Your task to perform on an android device: set default search engine in the chrome app Image 0: 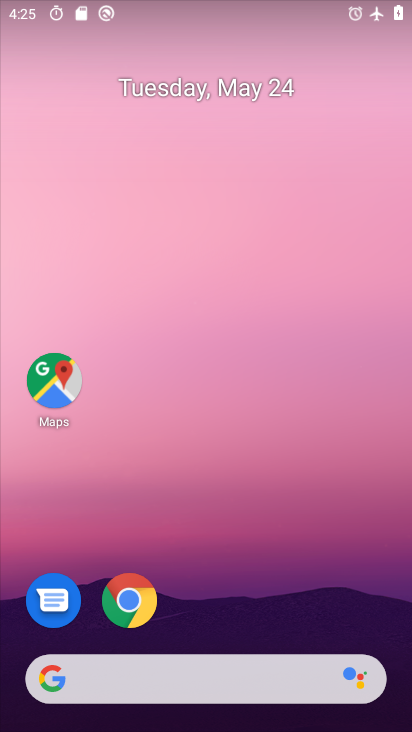
Step 0: drag from (340, 692) to (342, 4)
Your task to perform on an android device: set default search engine in the chrome app Image 1: 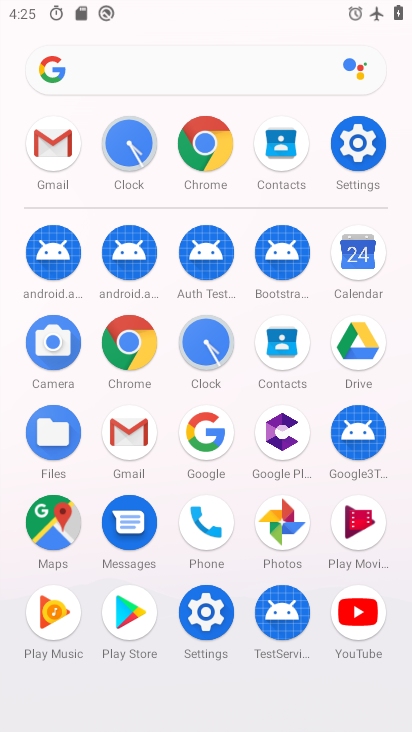
Step 1: click (125, 341)
Your task to perform on an android device: set default search engine in the chrome app Image 2: 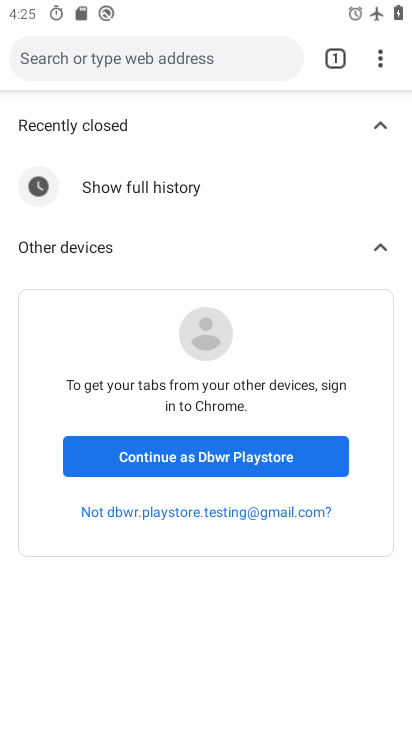
Step 2: click (390, 53)
Your task to perform on an android device: set default search engine in the chrome app Image 3: 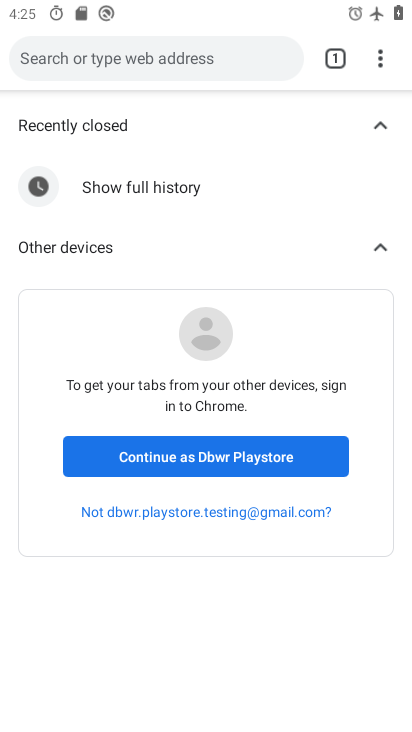
Step 3: drag from (386, 48) to (155, 490)
Your task to perform on an android device: set default search engine in the chrome app Image 4: 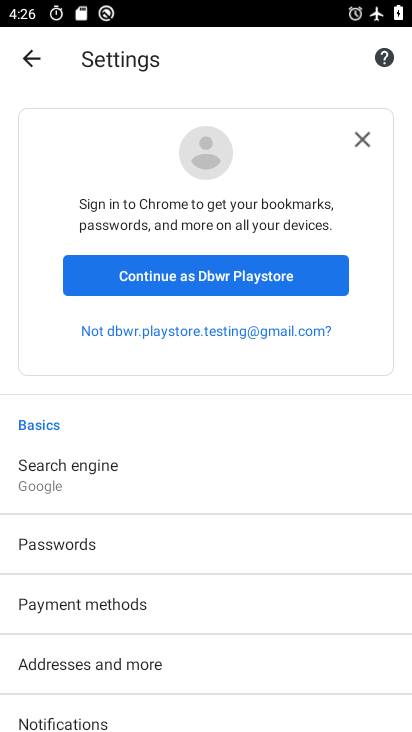
Step 4: click (72, 485)
Your task to perform on an android device: set default search engine in the chrome app Image 5: 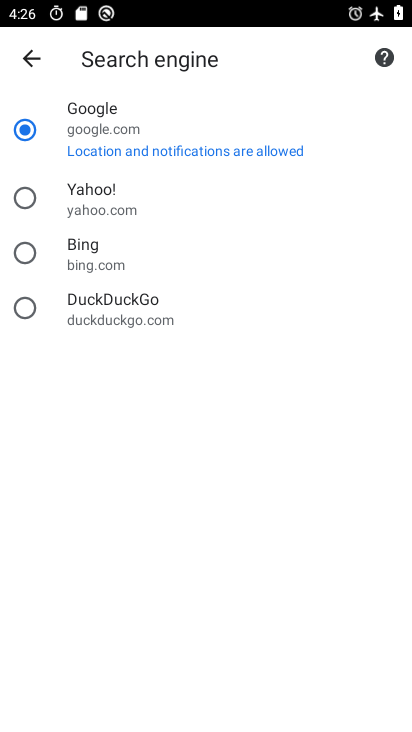
Step 5: click (180, 146)
Your task to perform on an android device: set default search engine in the chrome app Image 6: 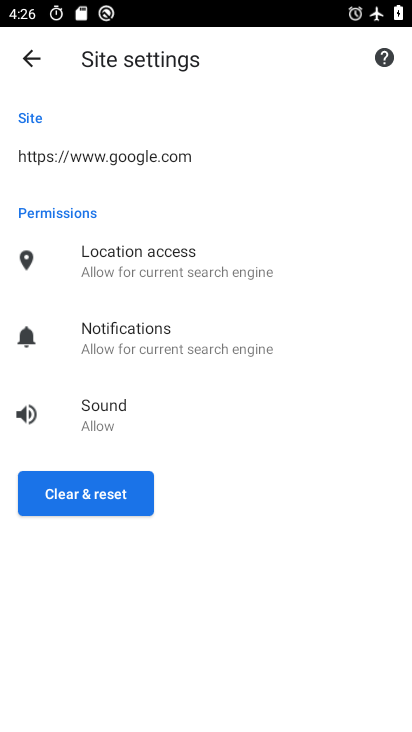
Step 6: task complete